Your task to perform on an android device: stop showing notifications on the lock screen Image 0: 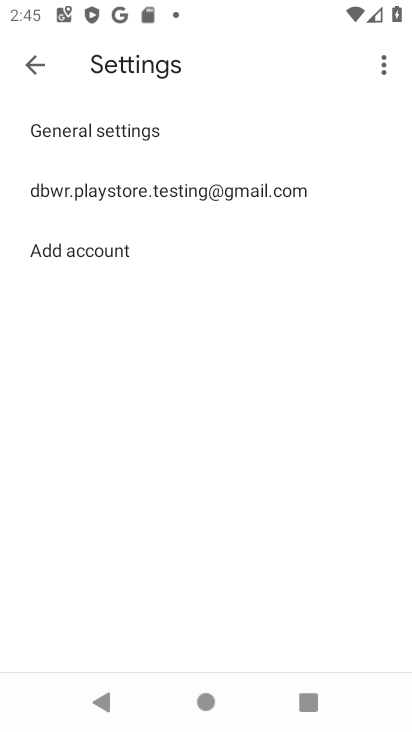
Step 0: press home button
Your task to perform on an android device: stop showing notifications on the lock screen Image 1: 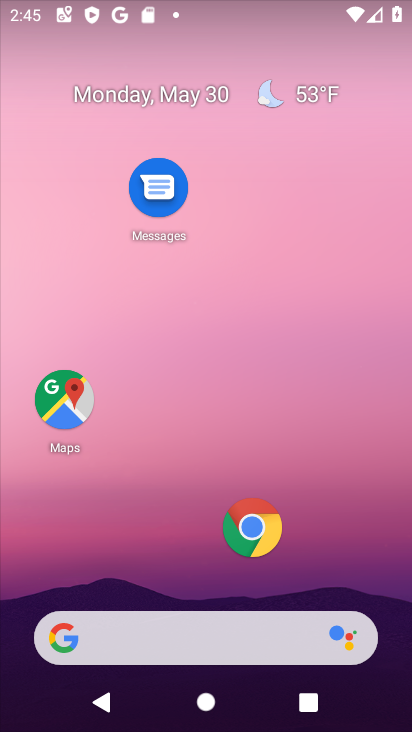
Step 1: drag from (174, 551) to (305, 125)
Your task to perform on an android device: stop showing notifications on the lock screen Image 2: 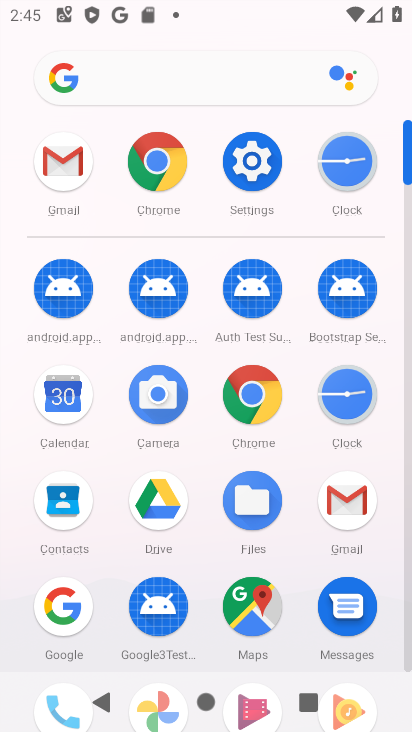
Step 2: drag from (212, 259) to (240, 19)
Your task to perform on an android device: stop showing notifications on the lock screen Image 3: 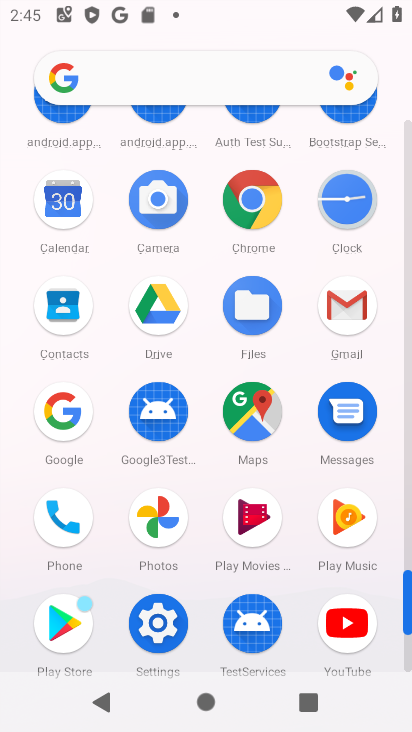
Step 3: click (164, 612)
Your task to perform on an android device: stop showing notifications on the lock screen Image 4: 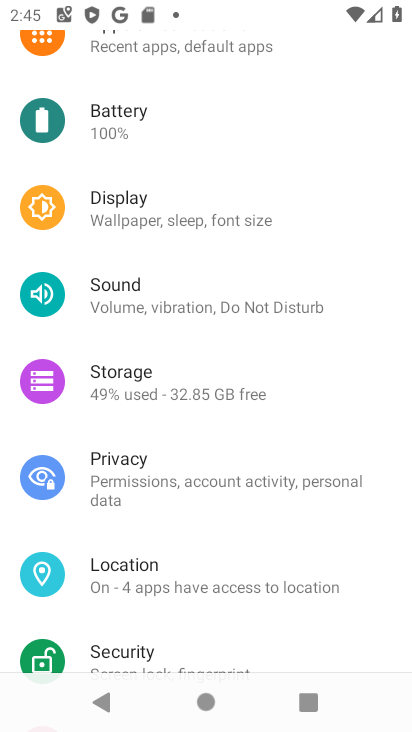
Step 4: drag from (189, 529) to (281, 141)
Your task to perform on an android device: stop showing notifications on the lock screen Image 5: 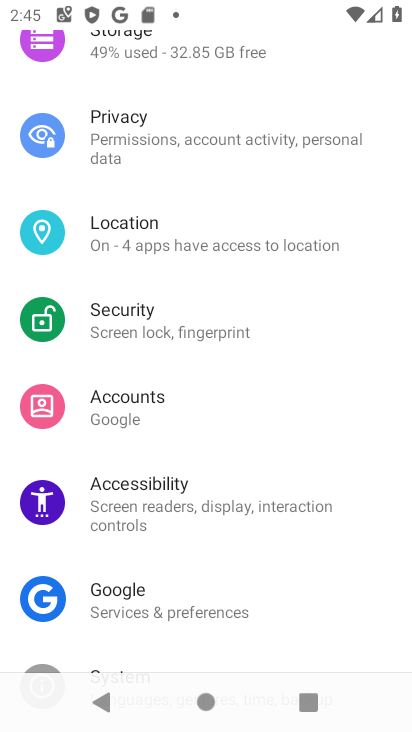
Step 5: drag from (263, 165) to (283, 577)
Your task to perform on an android device: stop showing notifications on the lock screen Image 6: 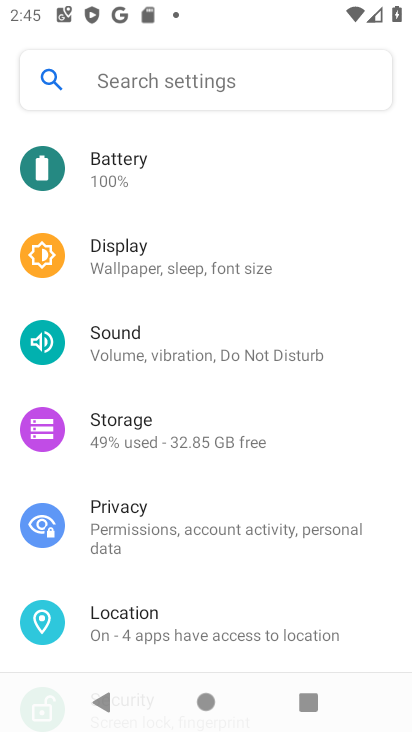
Step 6: drag from (239, 338) to (285, 634)
Your task to perform on an android device: stop showing notifications on the lock screen Image 7: 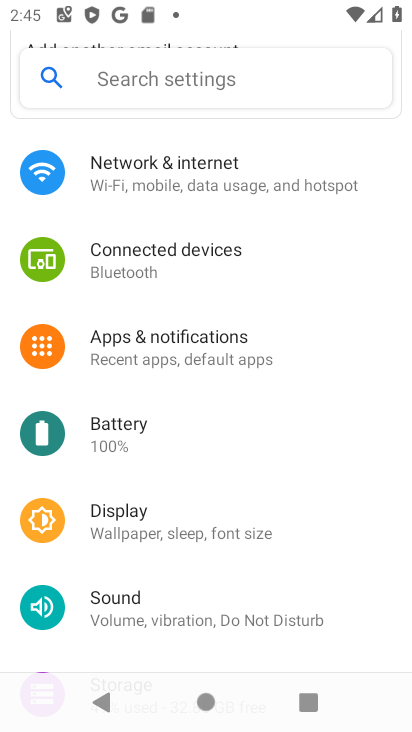
Step 7: click (222, 349)
Your task to perform on an android device: stop showing notifications on the lock screen Image 8: 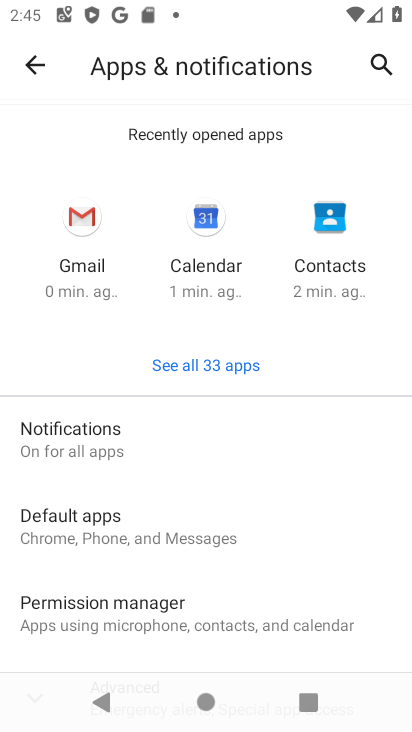
Step 8: click (168, 456)
Your task to perform on an android device: stop showing notifications on the lock screen Image 9: 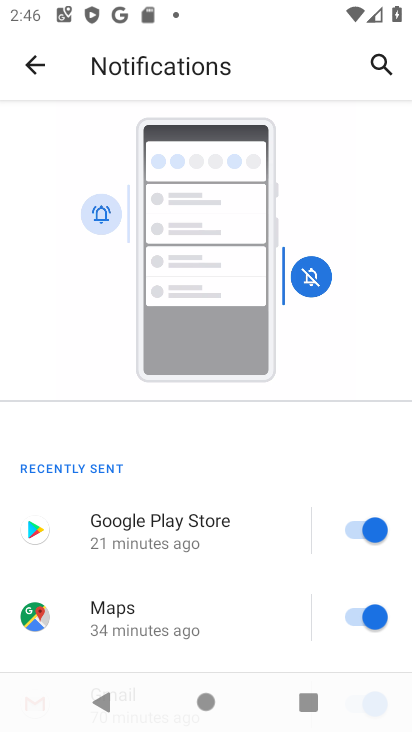
Step 9: drag from (198, 644) to (193, 298)
Your task to perform on an android device: stop showing notifications on the lock screen Image 10: 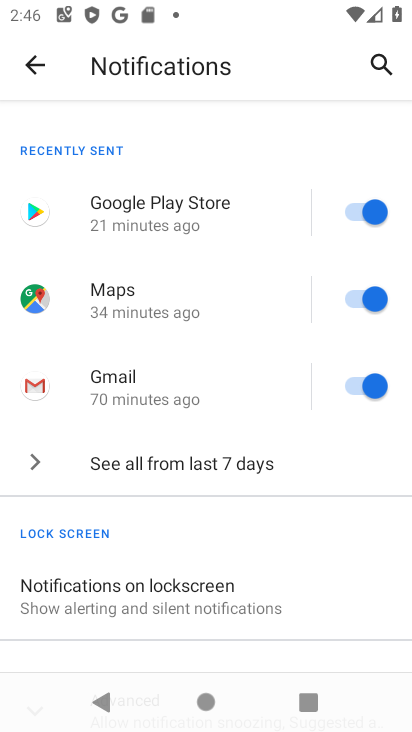
Step 10: drag from (206, 432) to (273, 183)
Your task to perform on an android device: stop showing notifications on the lock screen Image 11: 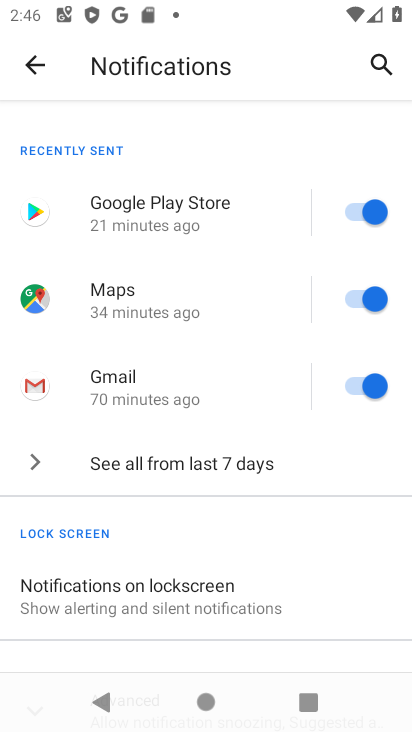
Step 11: click (160, 583)
Your task to perform on an android device: stop showing notifications on the lock screen Image 12: 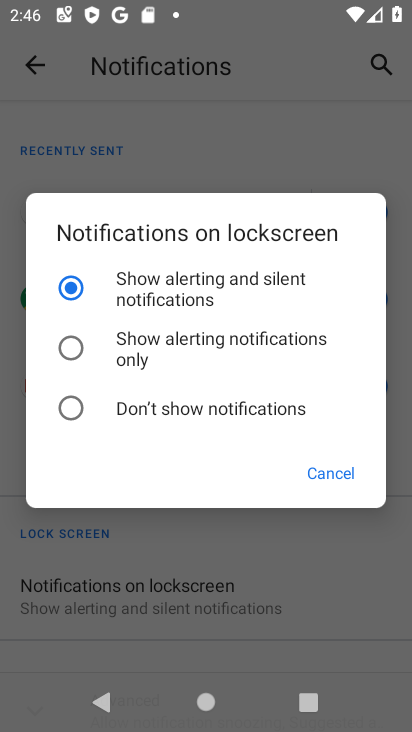
Step 12: click (176, 418)
Your task to perform on an android device: stop showing notifications on the lock screen Image 13: 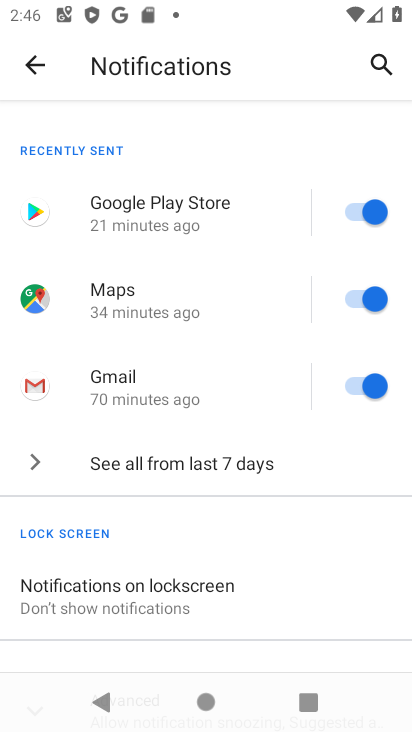
Step 13: task complete